Your task to perform on an android device: What is the news today? Image 0: 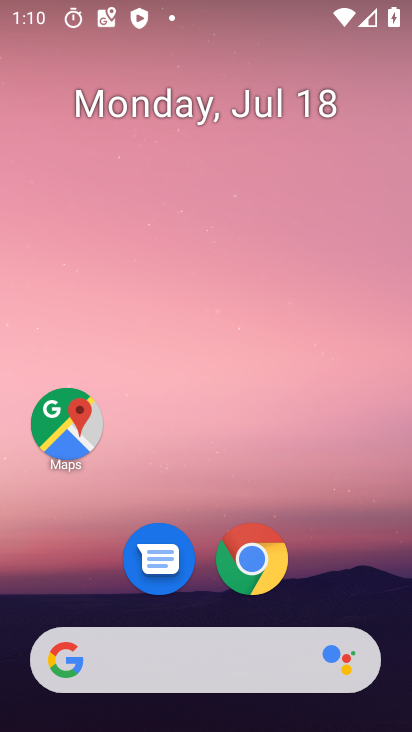
Step 0: click (173, 655)
Your task to perform on an android device: What is the news today? Image 1: 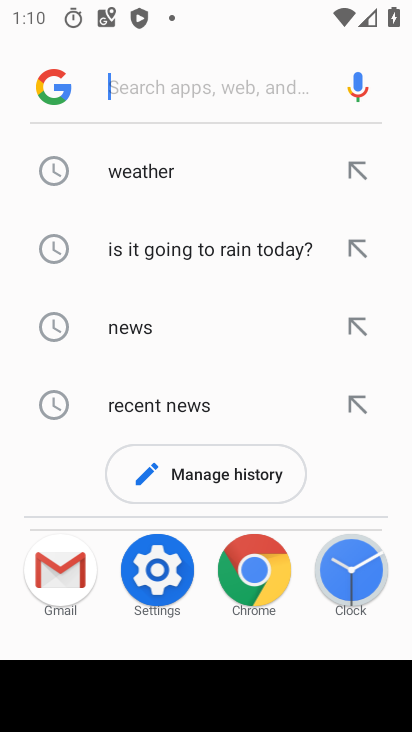
Step 1: click (148, 81)
Your task to perform on an android device: What is the news today? Image 2: 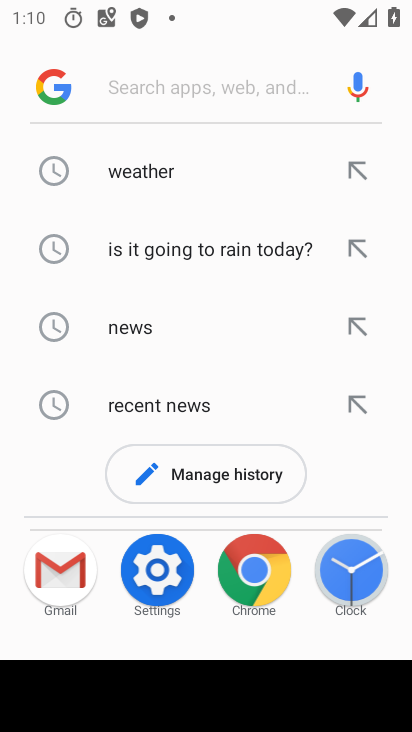
Step 2: type "news today"
Your task to perform on an android device: What is the news today? Image 3: 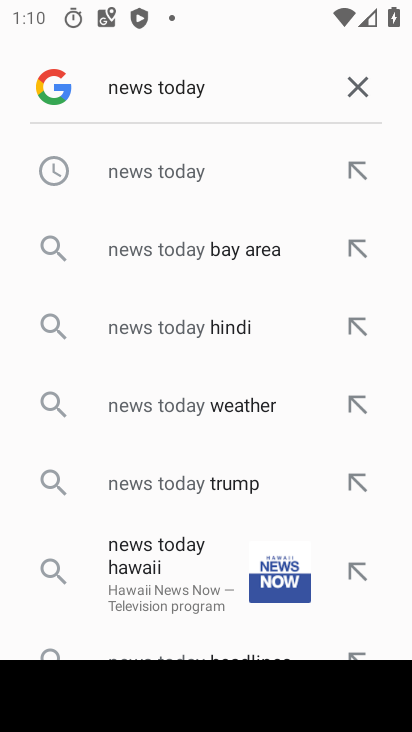
Step 3: click (183, 165)
Your task to perform on an android device: What is the news today? Image 4: 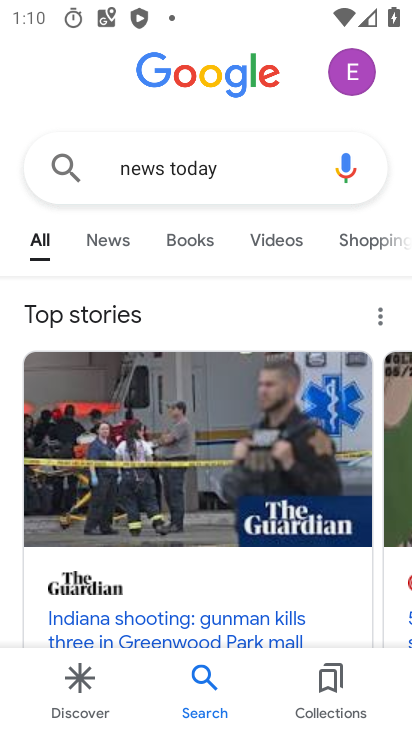
Step 4: task complete